Your task to perform on an android device: Do I have any events today? Image 0: 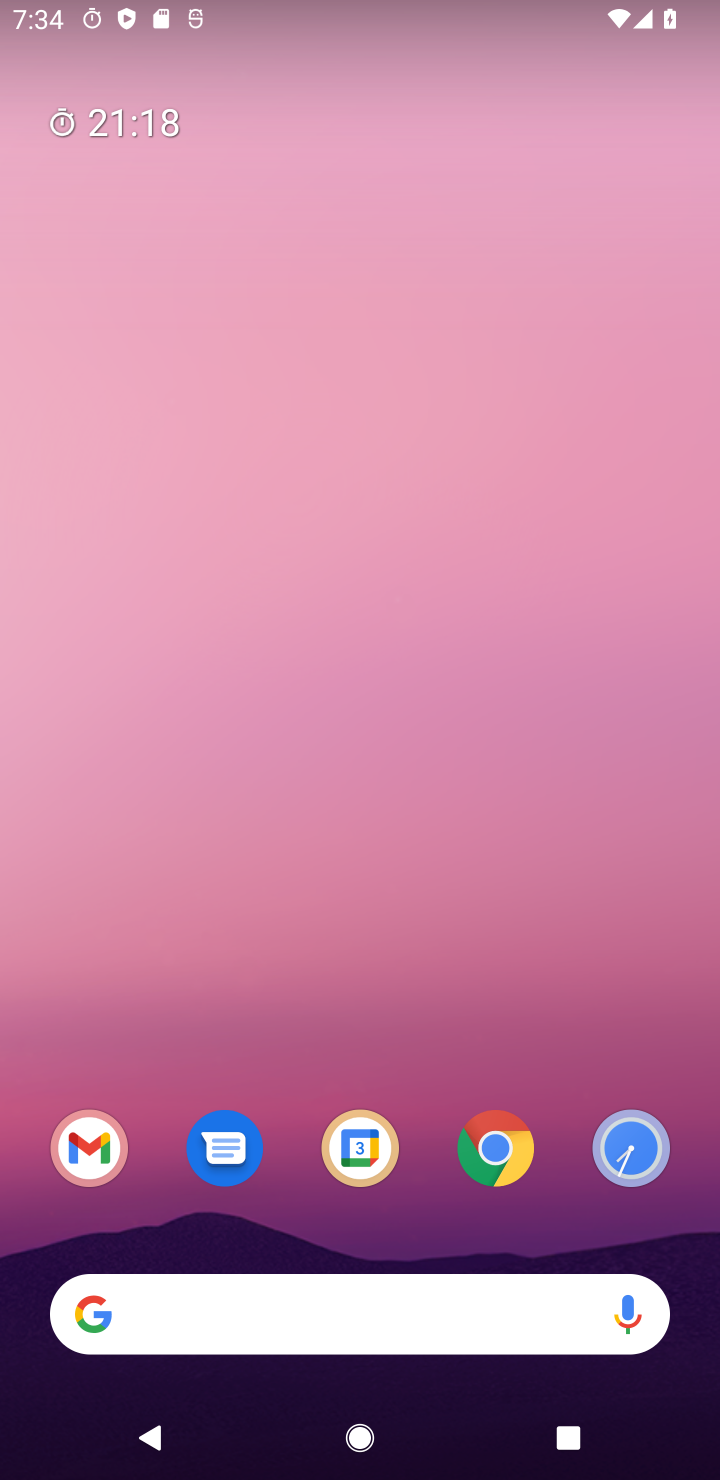
Step 0: press home button
Your task to perform on an android device: Do I have any events today? Image 1: 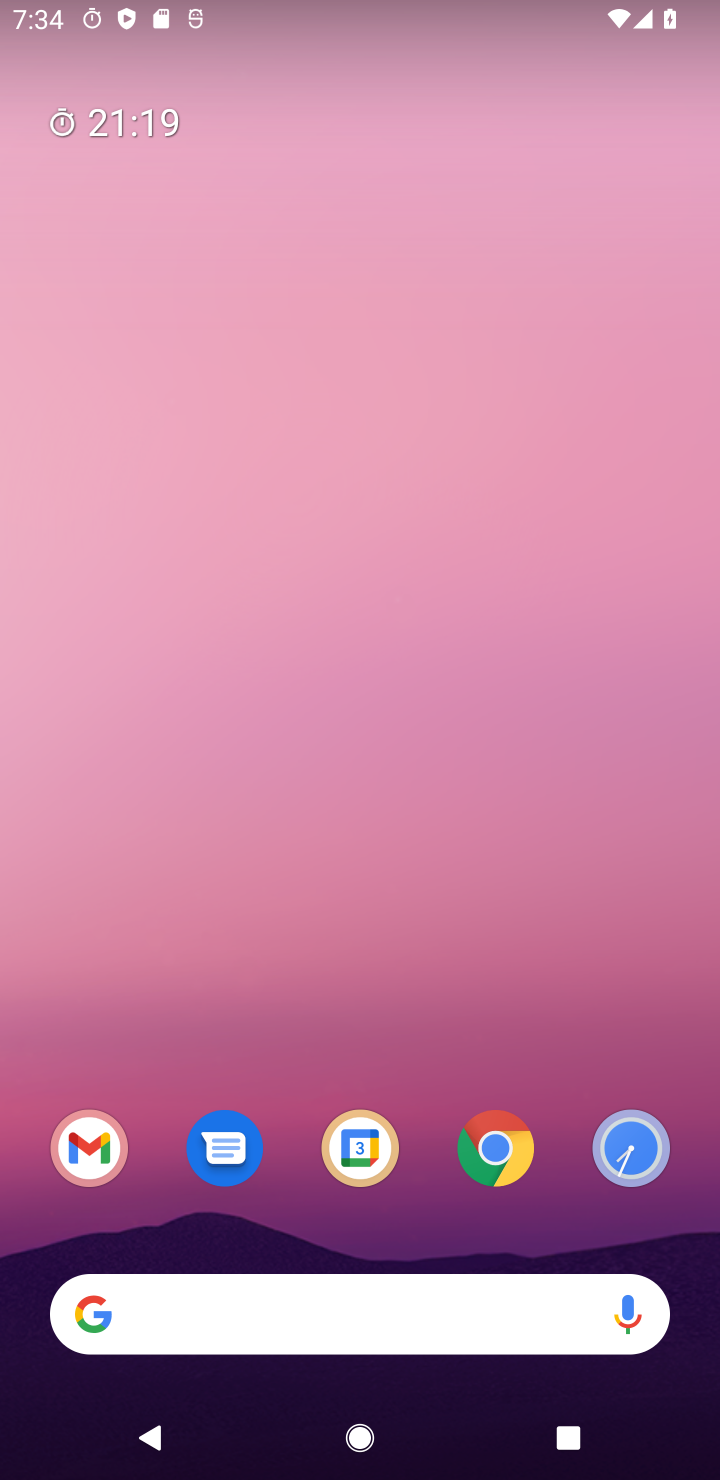
Step 1: drag from (294, 1089) to (488, 4)
Your task to perform on an android device: Do I have any events today? Image 2: 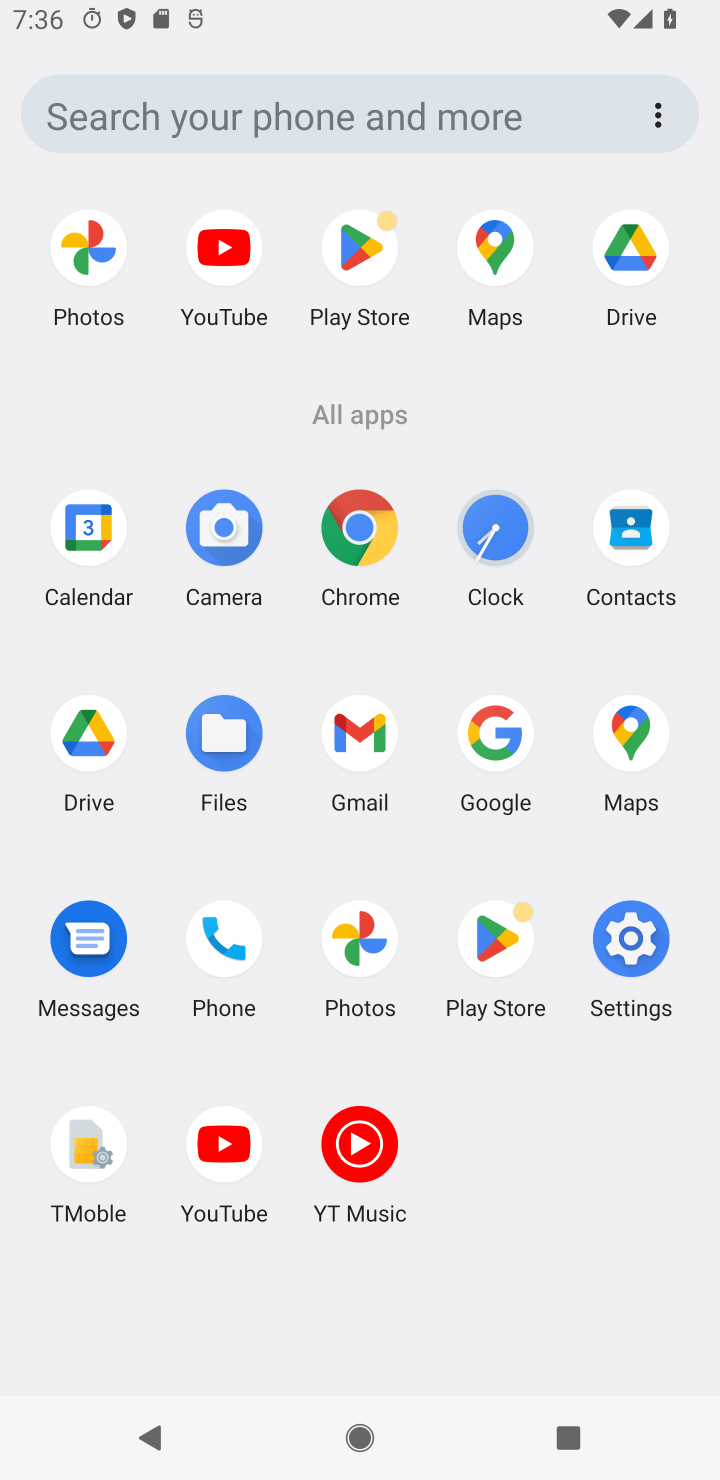
Step 2: click (73, 571)
Your task to perform on an android device: Do I have any events today? Image 3: 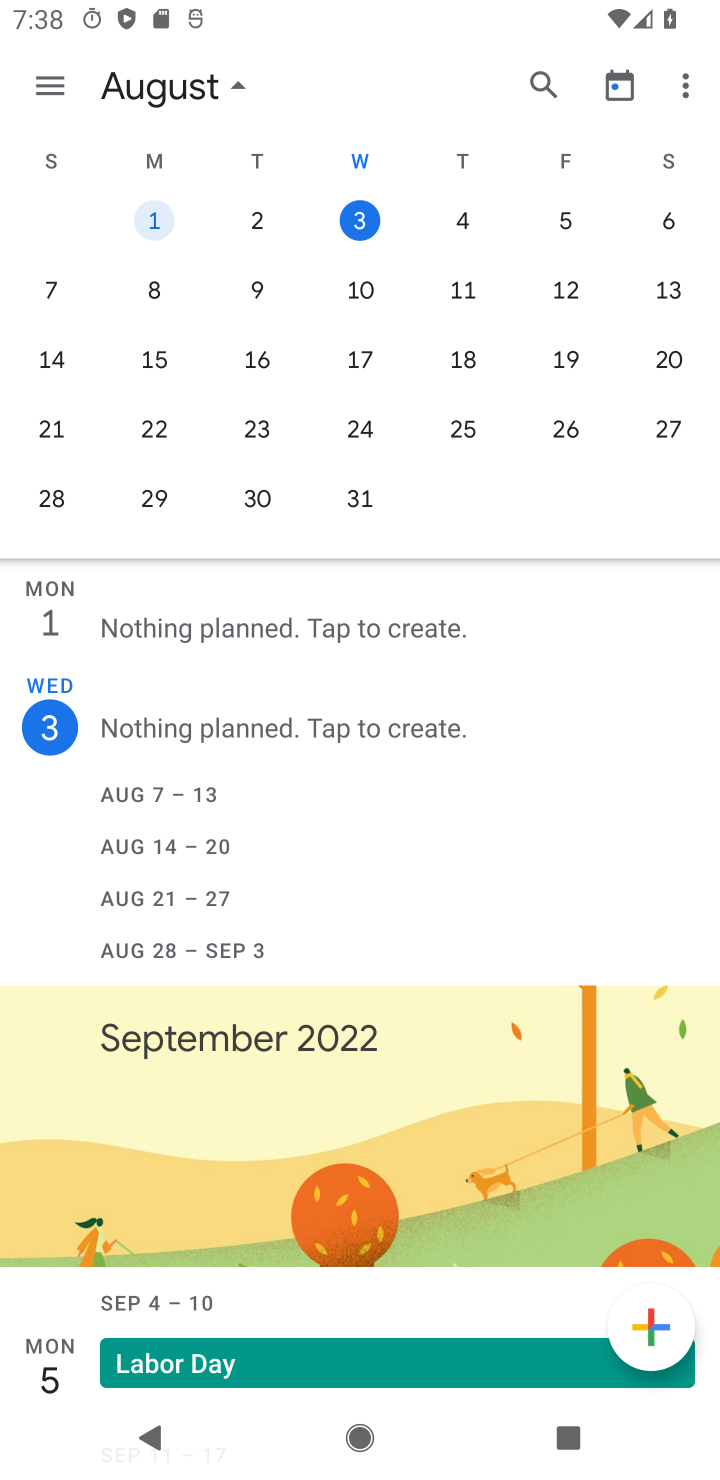
Step 3: click (198, 98)
Your task to perform on an android device: Do I have any events today? Image 4: 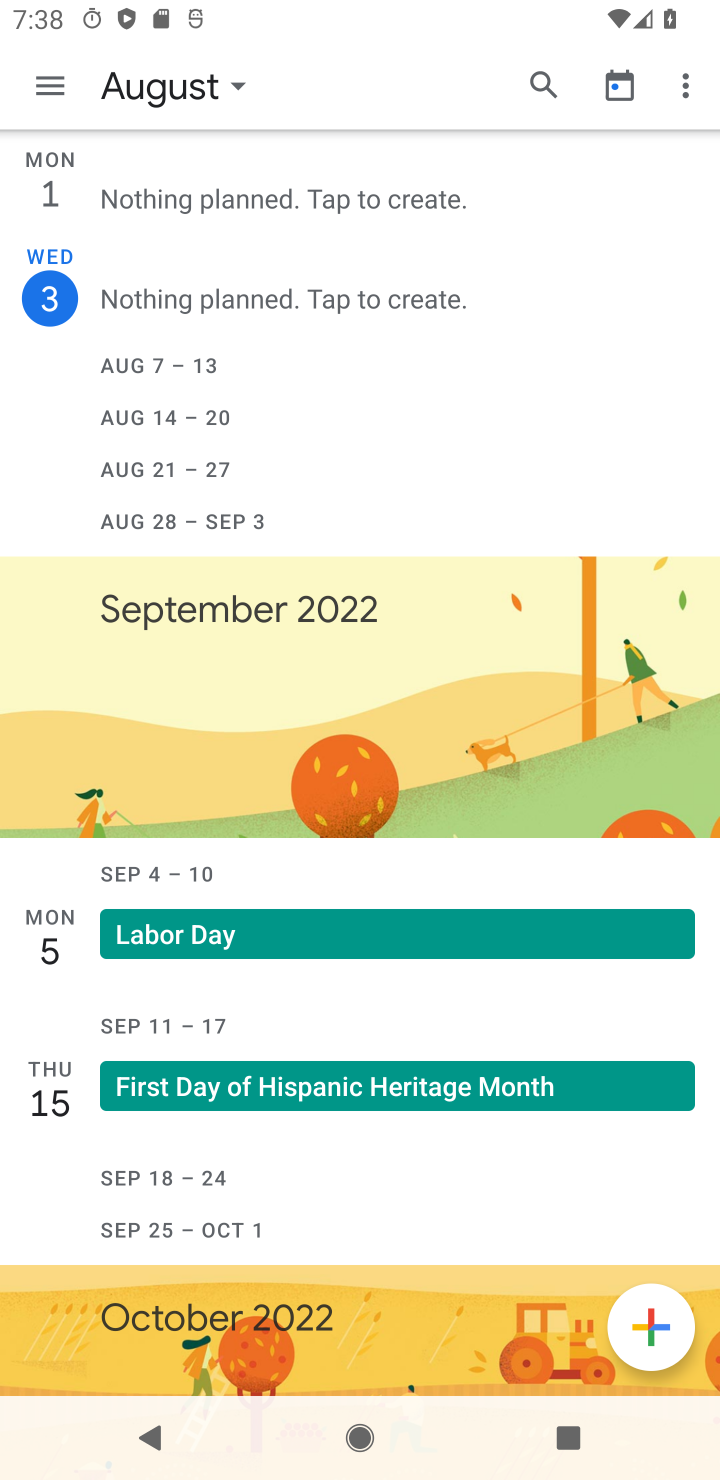
Step 4: task complete